Your task to perform on an android device: Go to Wikipedia Image 0: 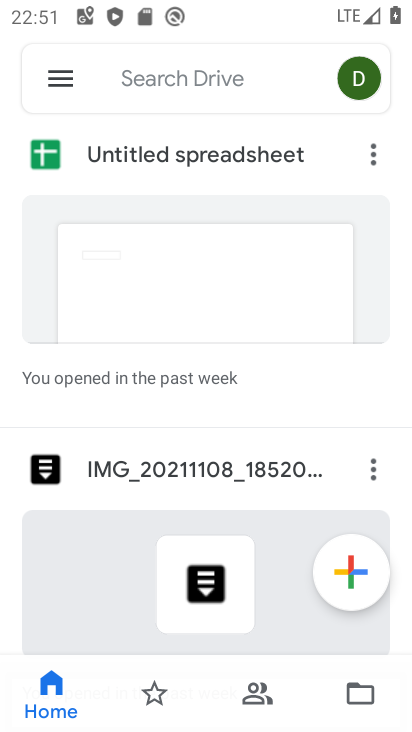
Step 0: press home button
Your task to perform on an android device: Go to Wikipedia Image 1: 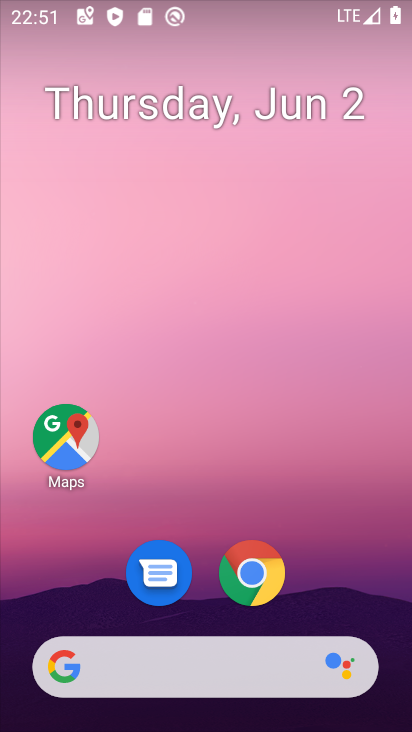
Step 1: click (252, 588)
Your task to perform on an android device: Go to Wikipedia Image 2: 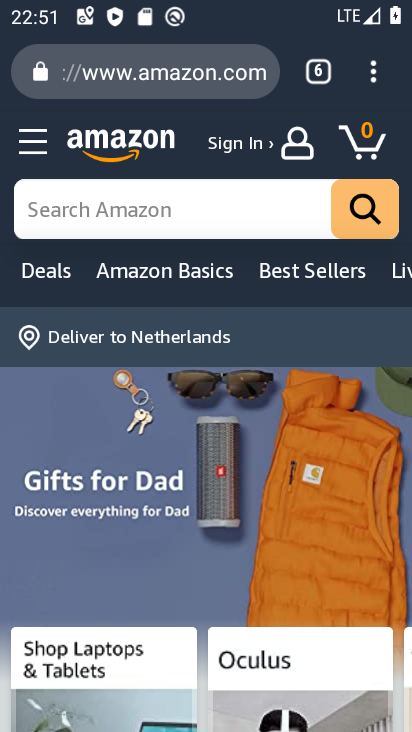
Step 2: click (312, 74)
Your task to perform on an android device: Go to Wikipedia Image 3: 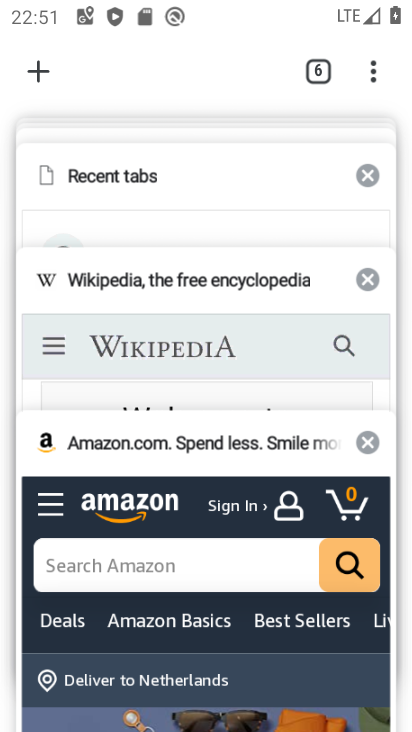
Step 3: click (226, 294)
Your task to perform on an android device: Go to Wikipedia Image 4: 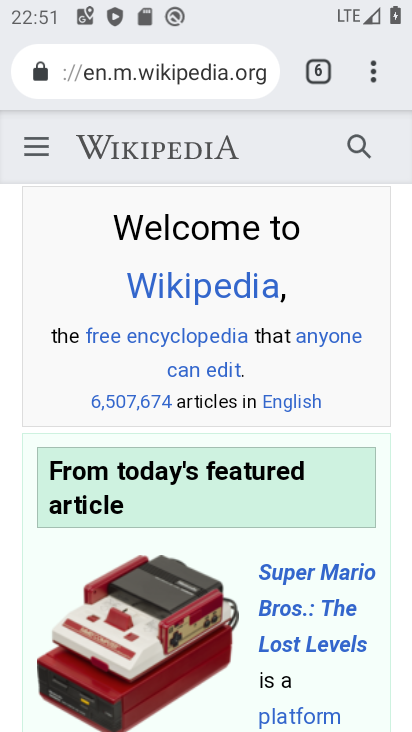
Step 4: task complete